Your task to perform on an android device: Open Yahoo.com Image 0: 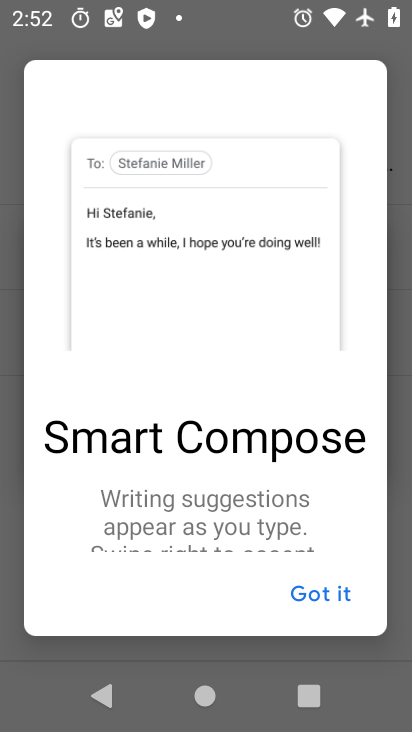
Step 0: press home button
Your task to perform on an android device: Open Yahoo.com Image 1: 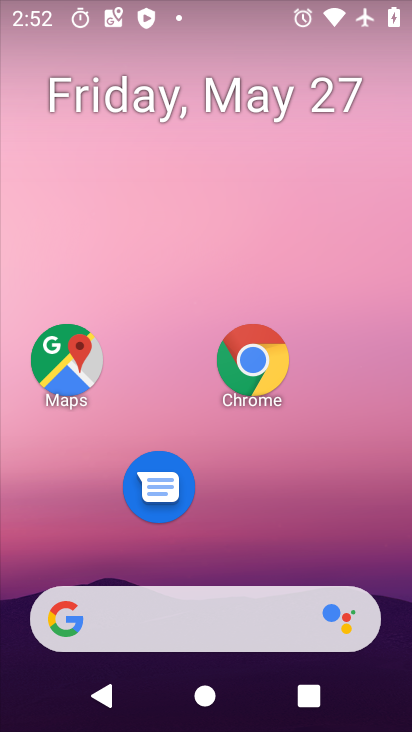
Step 1: drag from (261, 497) to (274, 95)
Your task to perform on an android device: Open Yahoo.com Image 2: 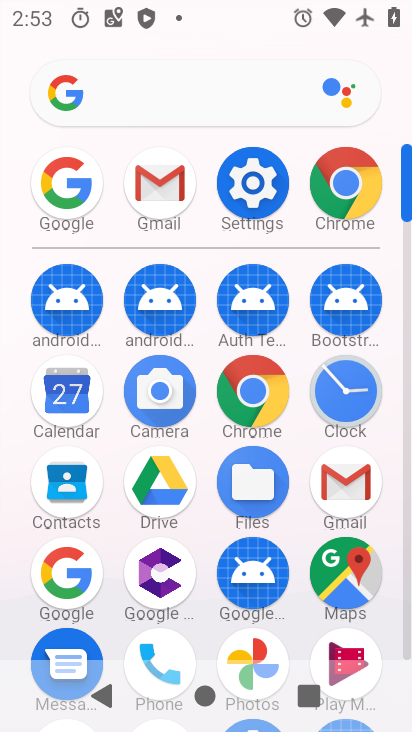
Step 2: click (345, 182)
Your task to perform on an android device: Open Yahoo.com Image 3: 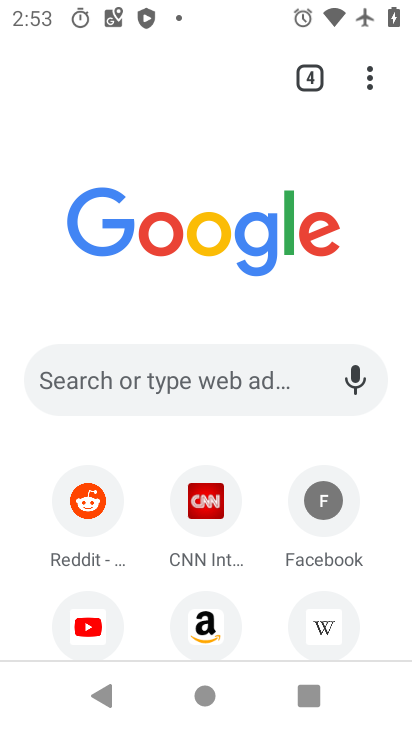
Step 3: drag from (264, 481) to (244, 165)
Your task to perform on an android device: Open Yahoo.com Image 4: 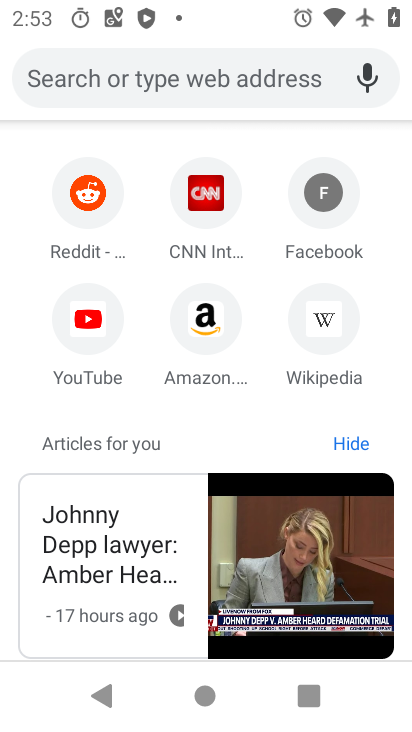
Step 4: click (151, 69)
Your task to perform on an android device: Open Yahoo.com Image 5: 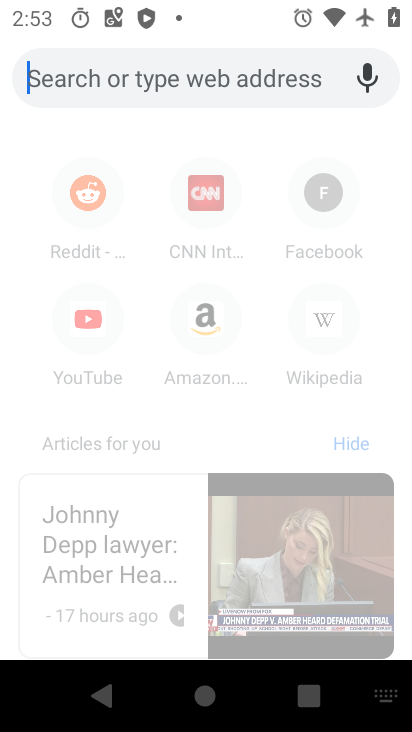
Step 5: type "yahoo.com"
Your task to perform on an android device: Open Yahoo.com Image 6: 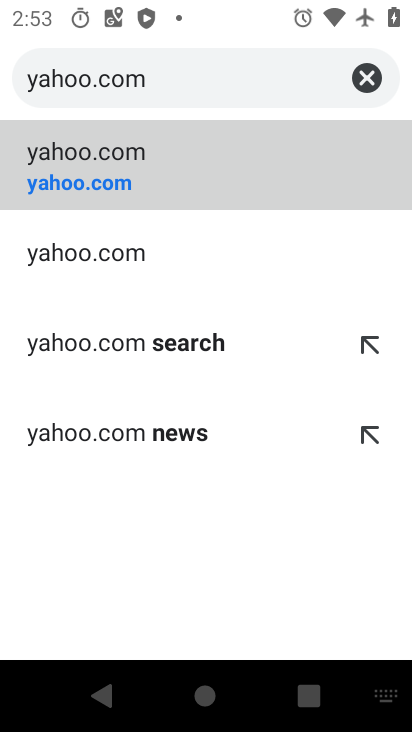
Step 6: click (170, 160)
Your task to perform on an android device: Open Yahoo.com Image 7: 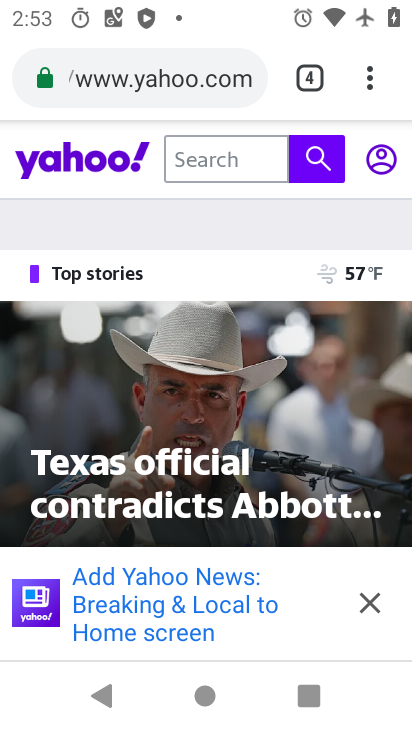
Step 7: task complete